Your task to perform on an android device: set the stopwatch Image 0: 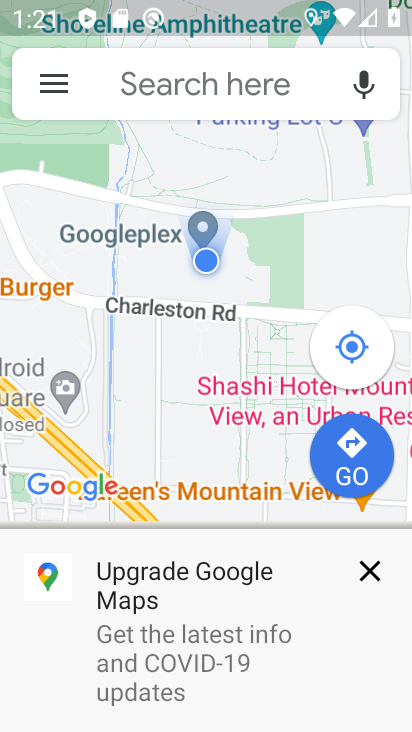
Step 0: press home button
Your task to perform on an android device: set the stopwatch Image 1: 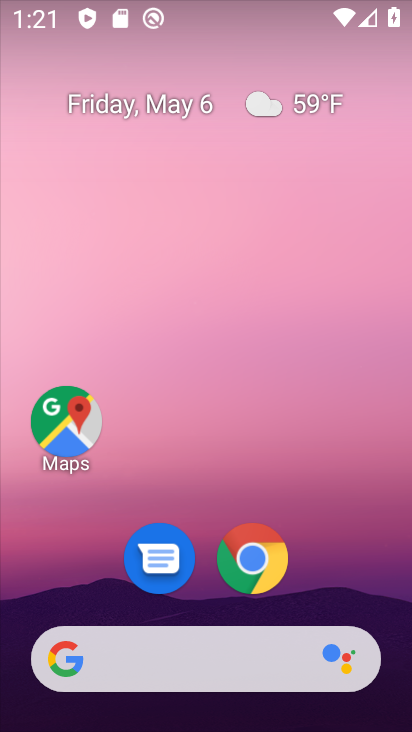
Step 1: drag from (214, 709) to (214, 178)
Your task to perform on an android device: set the stopwatch Image 2: 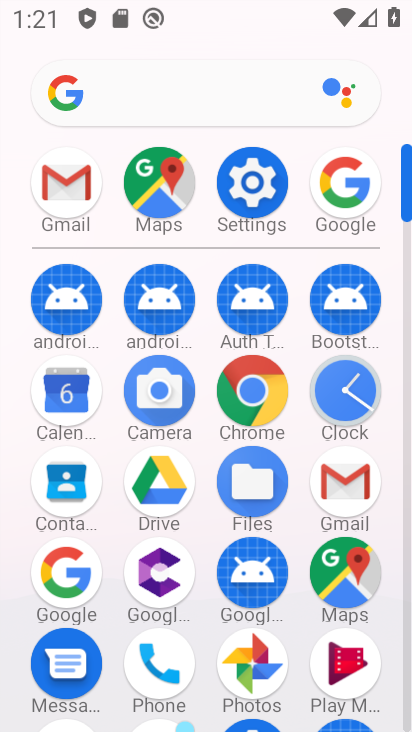
Step 2: click (361, 402)
Your task to perform on an android device: set the stopwatch Image 3: 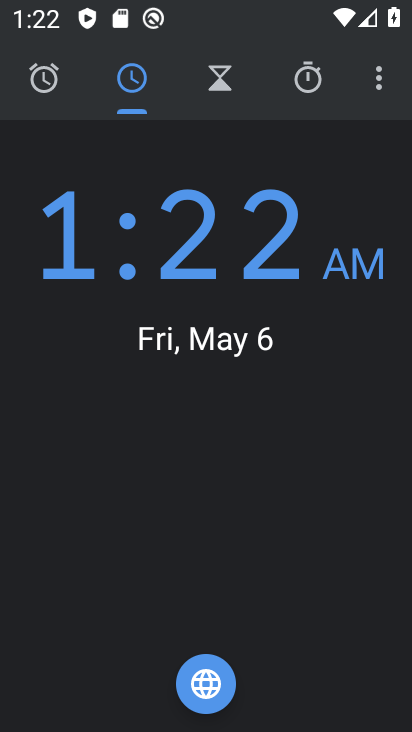
Step 3: click (306, 70)
Your task to perform on an android device: set the stopwatch Image 4: 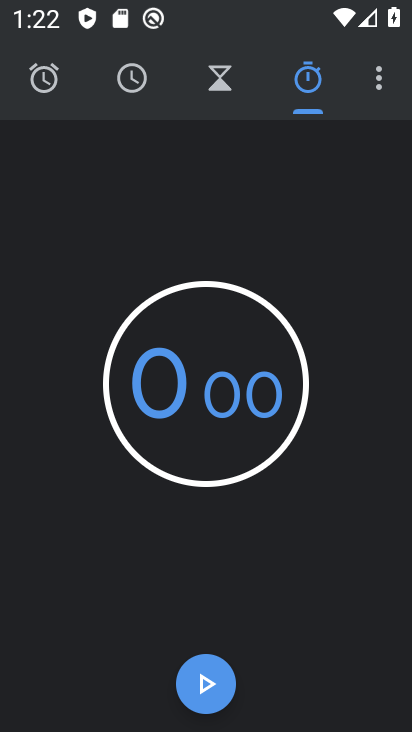
Step 4: click (210, 384)
Your task to perform on an android device: set the stopwatch Image 5: 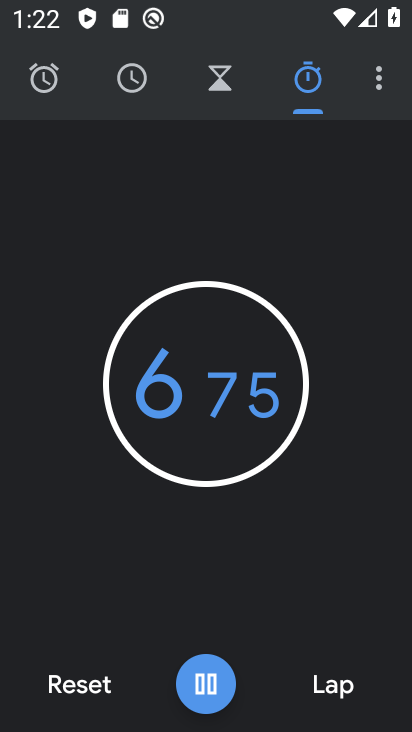
Step 5: type "656"
Your task to perform on an android device: set the stopwatch Image 6: 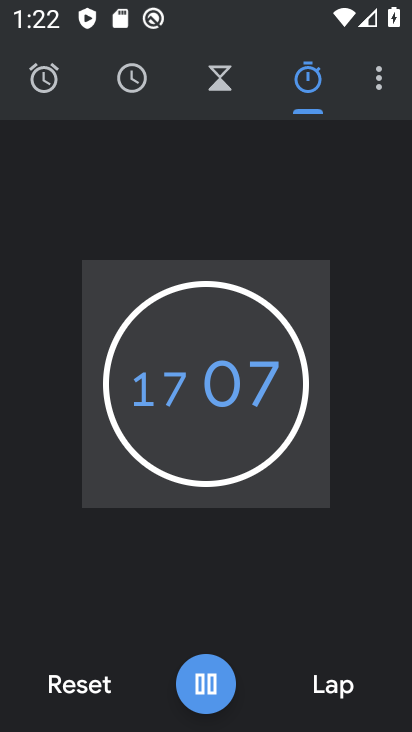
Step 6: task complete